Your task to perform on an android device: toggle location history Image 0: 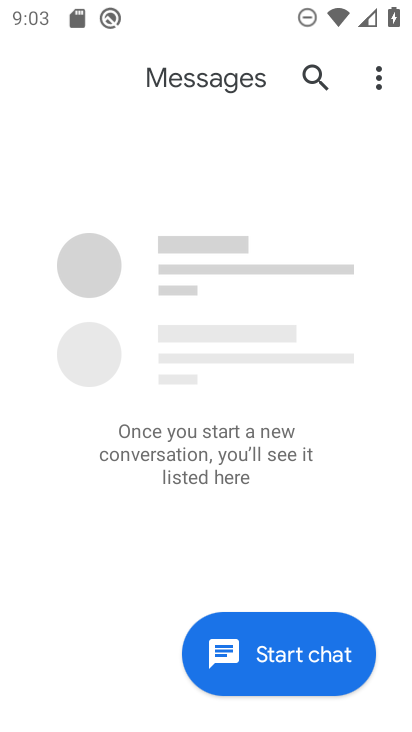
Step 0: press back button
Your task to perform on an android device: toggle location history Image 1: 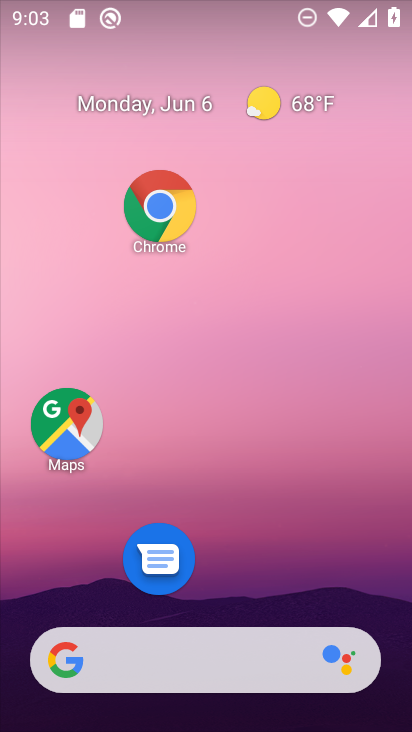
Step 1: drag from (257, 676) to (195, 257)
Your task to perform on an android device: toggle location history Image 2: 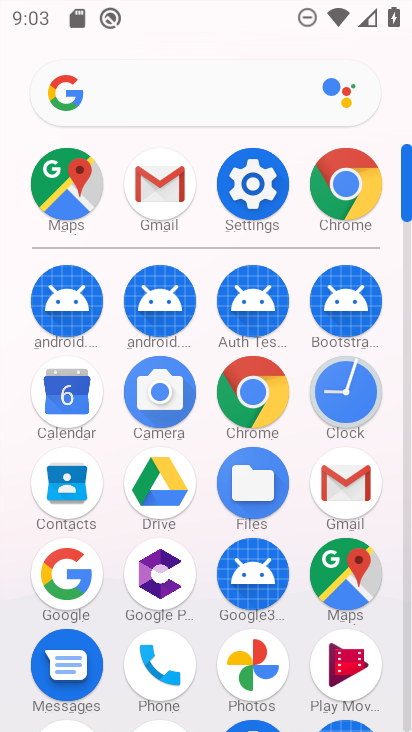
Step 2: click (251, 183)
Your task to perform on an android device: toggle location history Image 3: 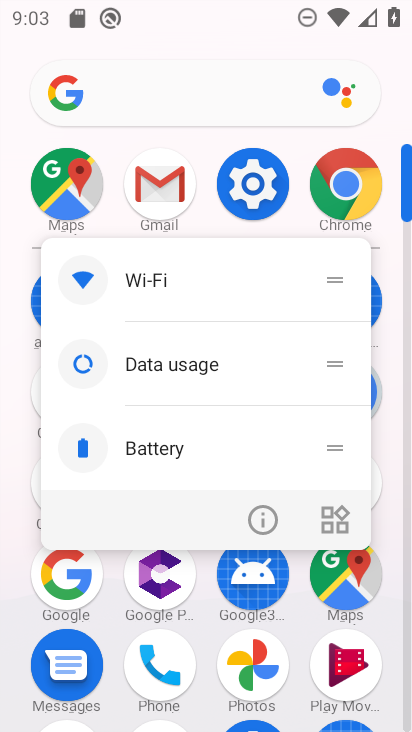
Step 3: click (243, 191)
Your task to perform on an android device: toggle location history Image 4: 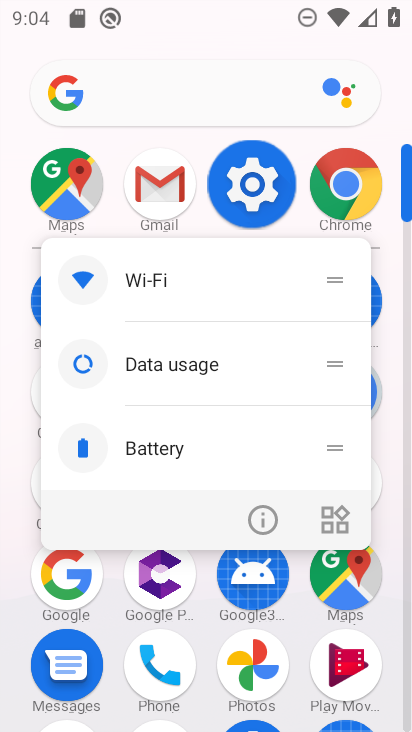
Step 4: click (249, 193)
Your task to perform on an android device: toggle location history Image 5: 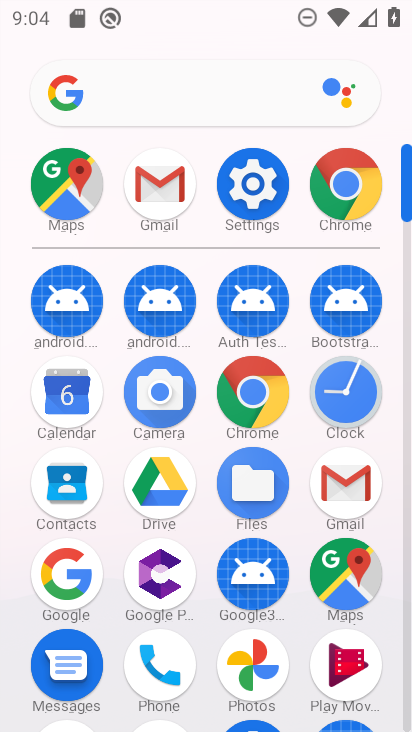
Step 5: click (250, 192)
Your task to perform on an android device: toggle location history Image 6: 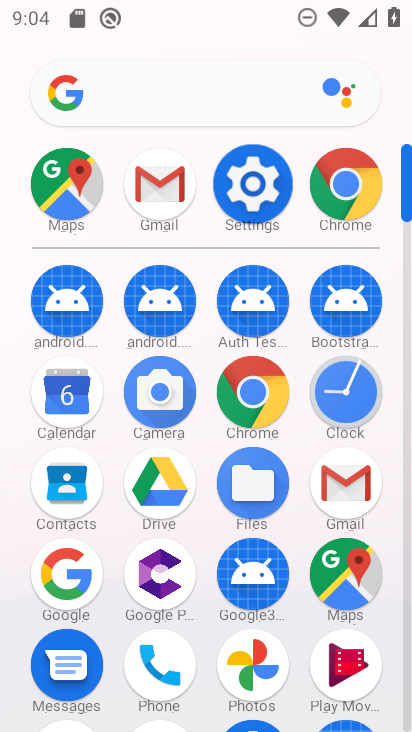
Step 6: click (250, 191)
Your task to perform on an android device: toggle location history Image 7: 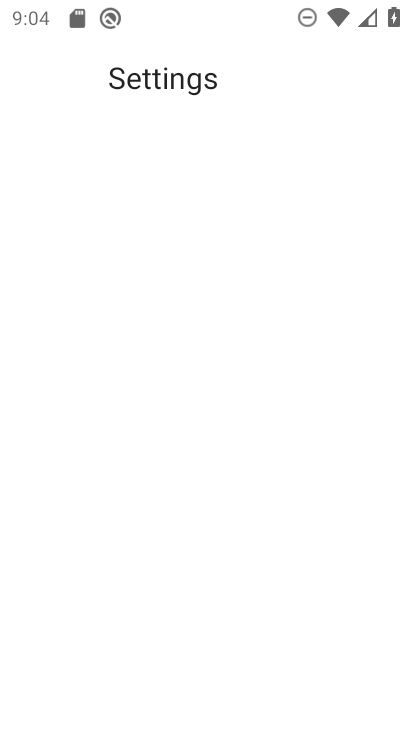
Step 7: click (250, 179)
Your task to perform on an android device: toggle location history Image 8: 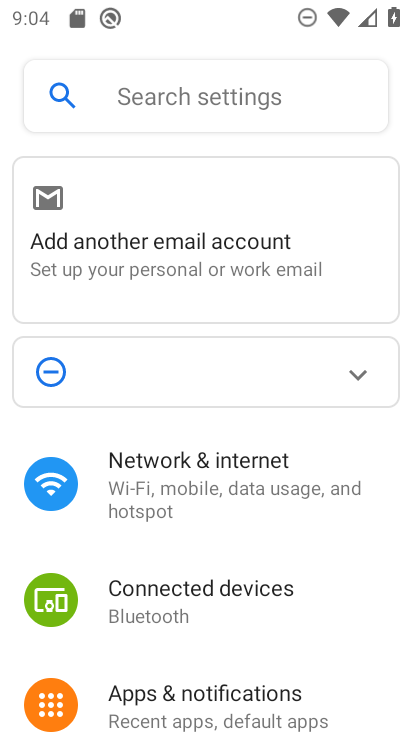
Step 8: drag from (164, 498) to (142, 224)
Your task to perform on an android device: toggle location history Image 9: 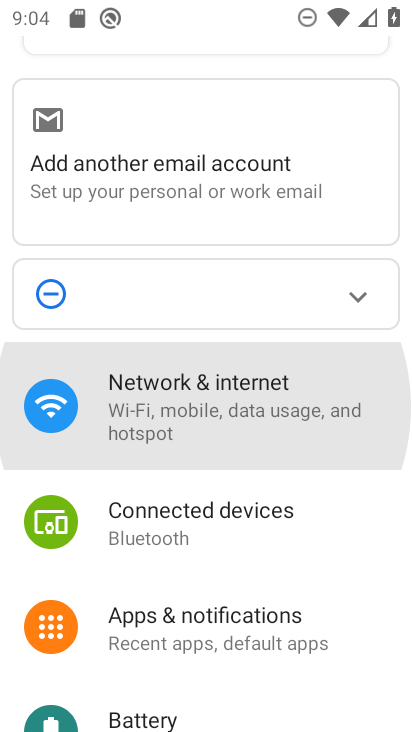
Step 9: drag from (223, 511) to (220, 274)
Your task to perform on an android device: toggle location history Image 10: 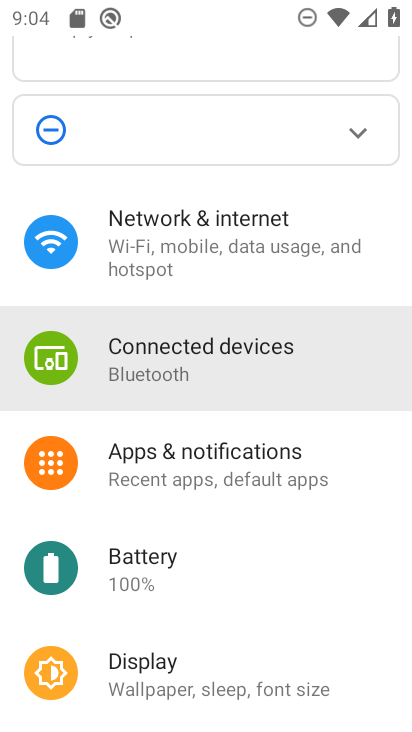
Step 10: drag from (222, 525) to (210, 296)
Your task to perform on an android device: toggle location history Image 11: 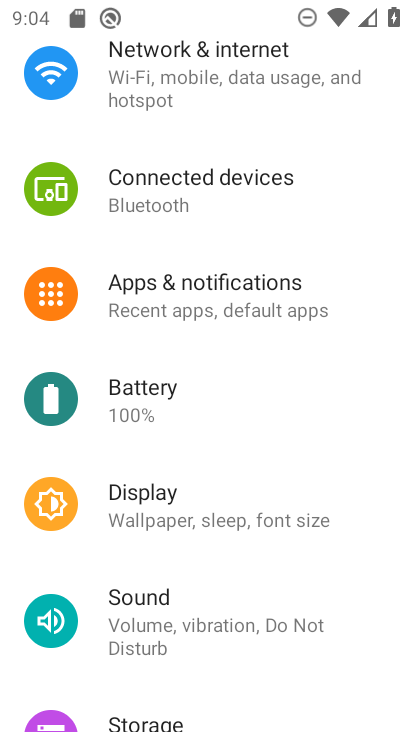
Step 11: drag from (220, 310) to (286, 295)
Your task to perform on an android device: toggle location history Image 12: 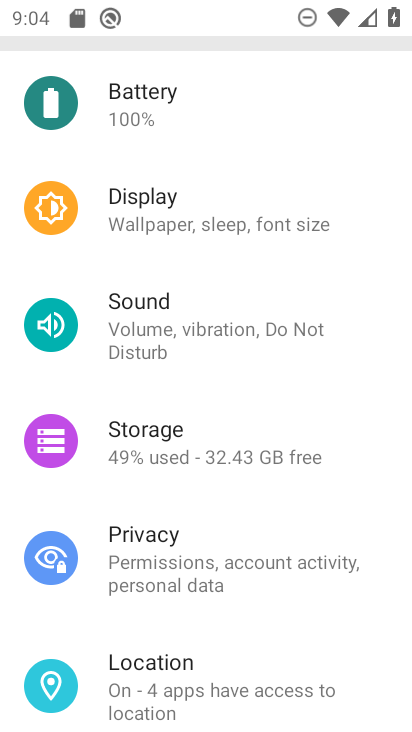
Step 12: drag from (321, 545) to (293, 303)
Your task to perform on an android device: toggle location history Image 13: 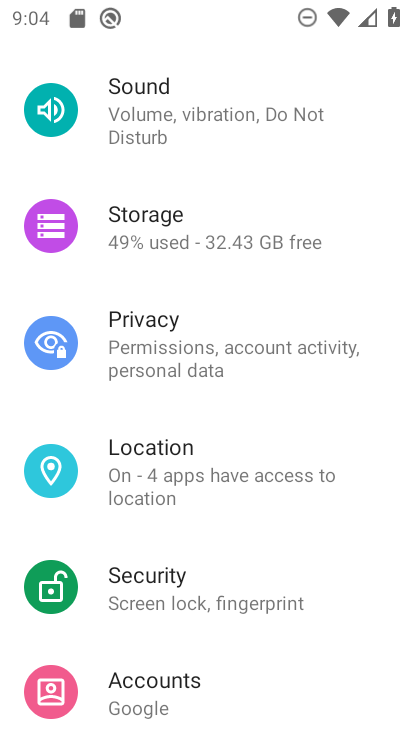
Step 13: drag from (297, 577) to (254, 270)
Your task to perform on an android device: toggle location history Image 14: 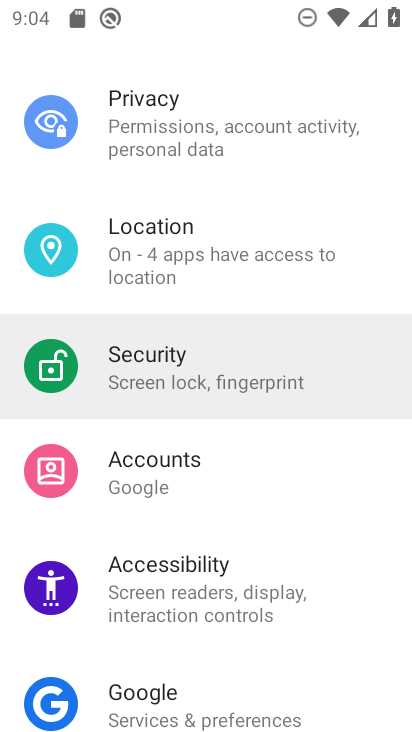
Step 14: drag from (239, 592) to (239, 361)
Your task to perform on an android device: toggle location history Image 15: 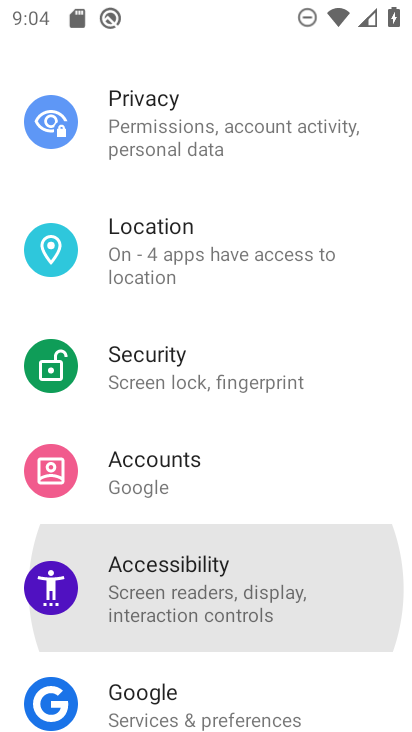
Step 15: drag from (266, 536) to (266, 357)
Your task to perform on an android device: toggle location history Image 16: 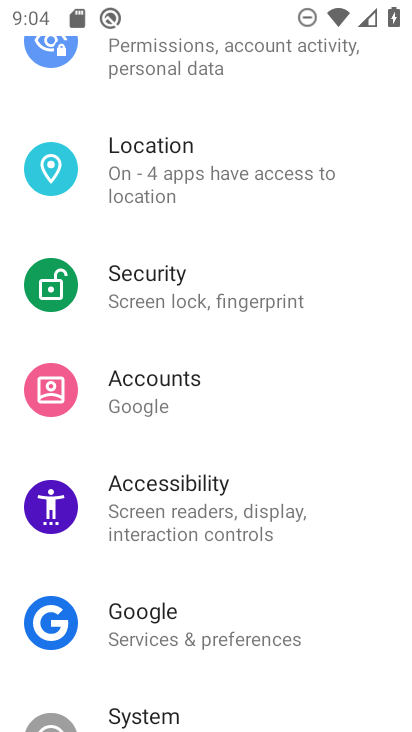
Step 16: drag from (278, 574) to (266, 325)
Your task to perform on an android device: toggle location history Image 17: 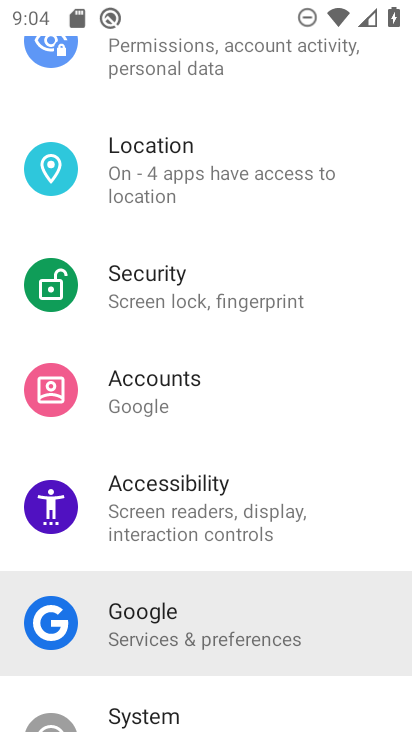
Step 17: drag from (253, 522) to (253, 379)
Your task to perform on an android device: toggle location history Image 18: 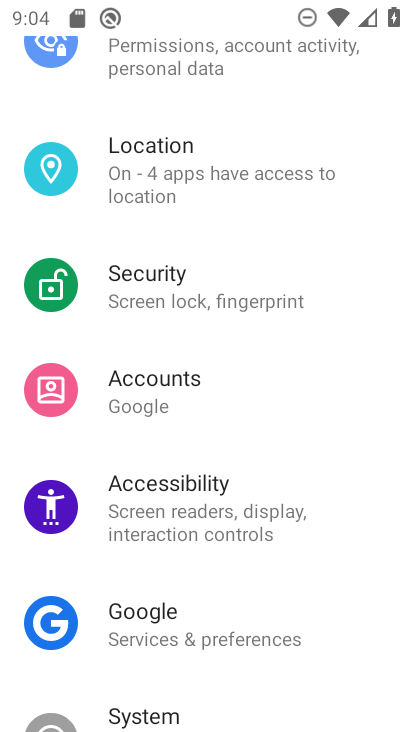
Step 18: drag from (256, 557) to (236, 352)
Your task to perform on an android device: toggle location history Image 19: 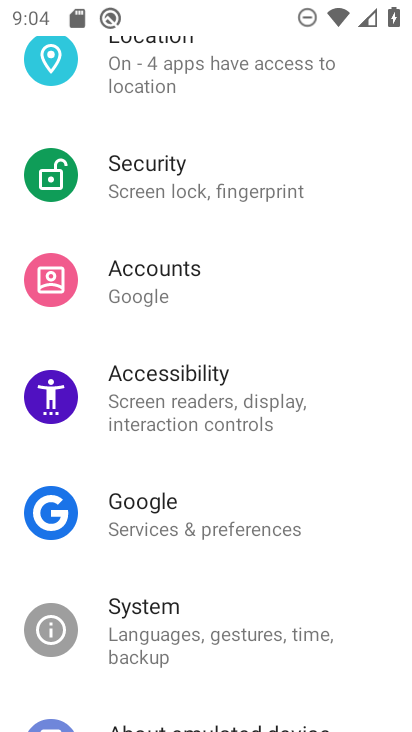
Step 19: click (222, 347)
Your task to perform on an android device: toggle location history Image 20: 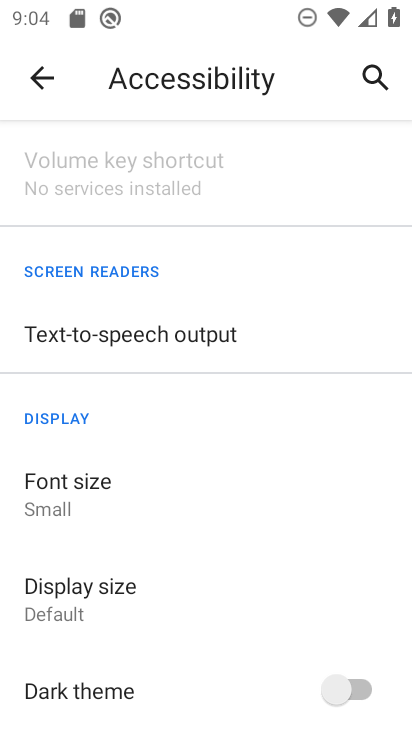
Step 20: click (31, 71)
Your task to perform on an android device: toggle location history Image 21: 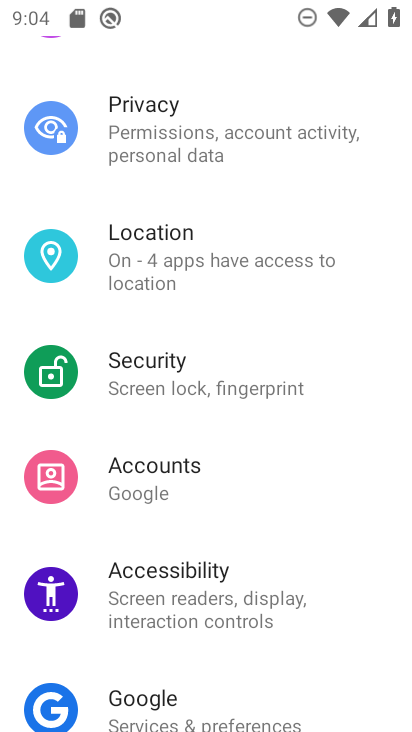
Step 21: click (154, 233)
Your task to perform on an android device: toggle location history Image 22: 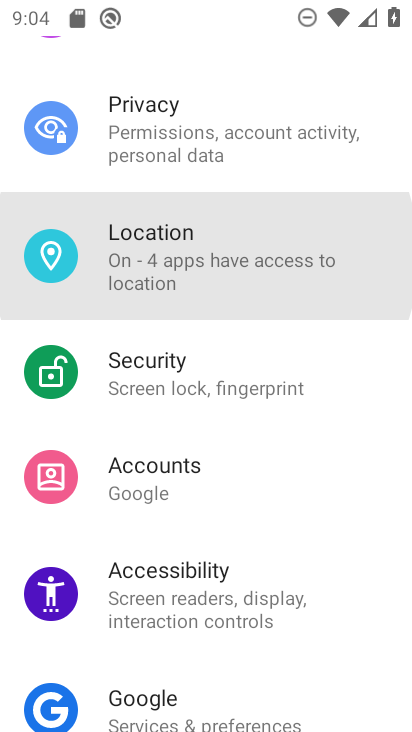
Step 22: click (154, 240)
Your task to perform on an android device: toggle location history Image 23: 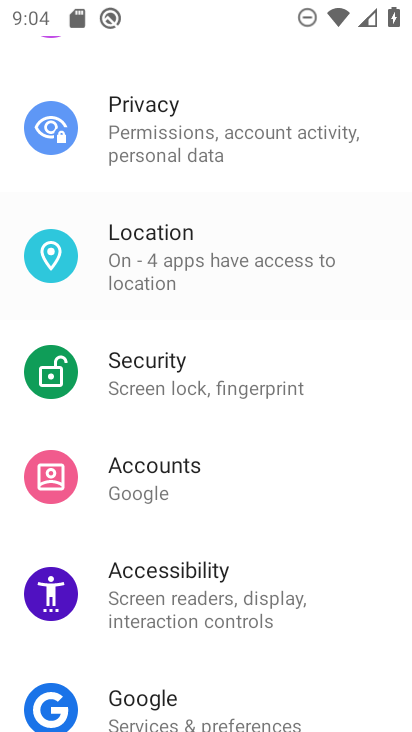
Step 23: click (156, 241)
Your task to perform on an android device: toggle location history Image 24: 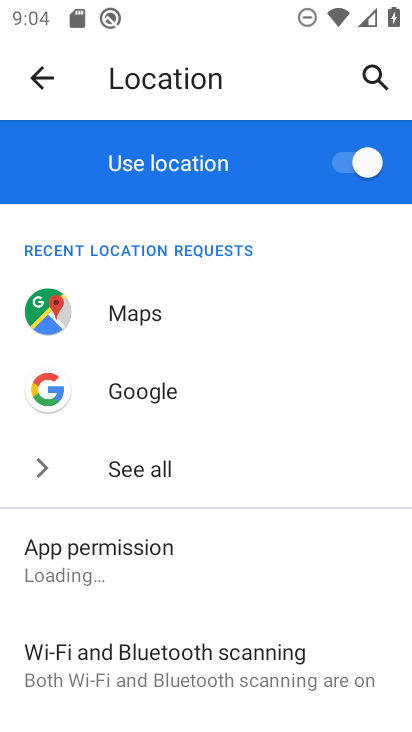
Step 24: drag from (238, 498) to (289, 243)
Your task to perform on an android device: toggle location history Image 25: 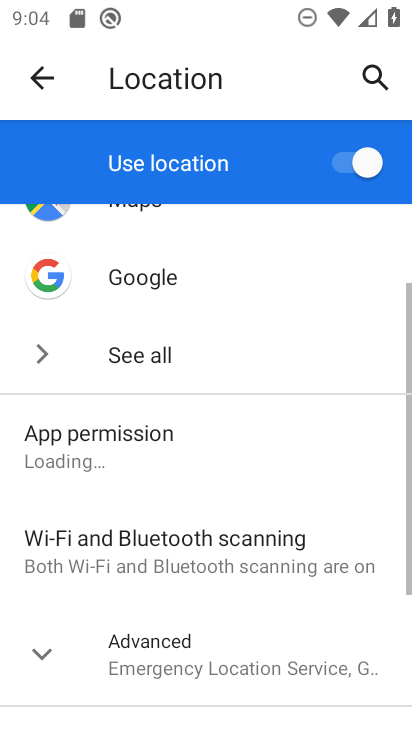
Step 25: drag from (262, 480) to (204, 249)
Your task to perform on an android device: toggle location history Image 26: 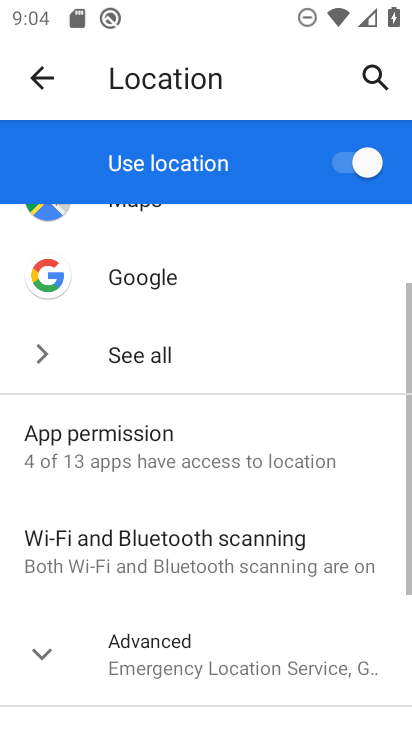
Step 26: click (175, 656)
Your task to perform on an android device: toggle location history Image 27: 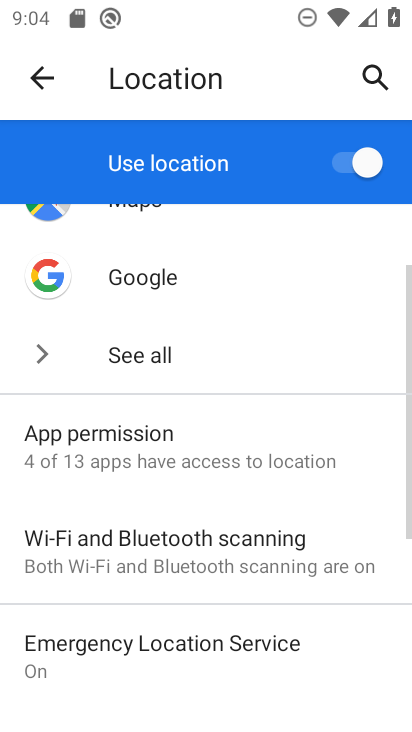
Step 27: drag from (210, 520) to (25, 156)
Your task to perform on an android device: toggle location history Image 28: 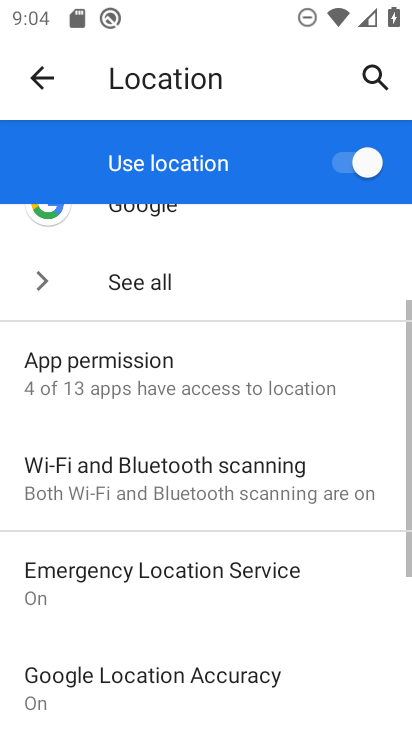
Step 28: click (210, 203)
Your task to perform on an android device: toggle location history Image 29: 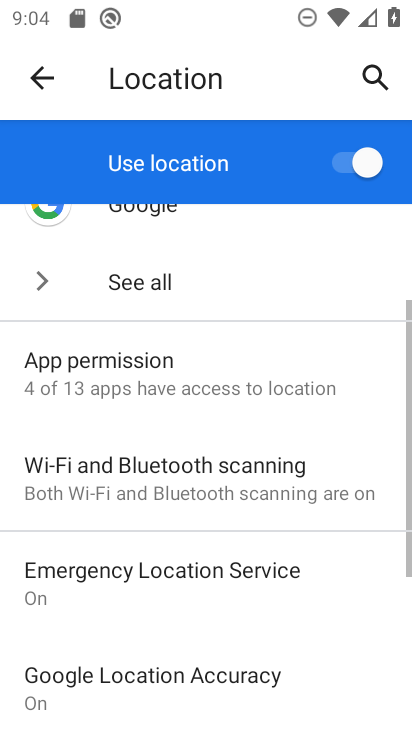
Step 29: drag from (272, 575) to (311, 128)
Your task to perform on an android device: toggle location history Image 30: 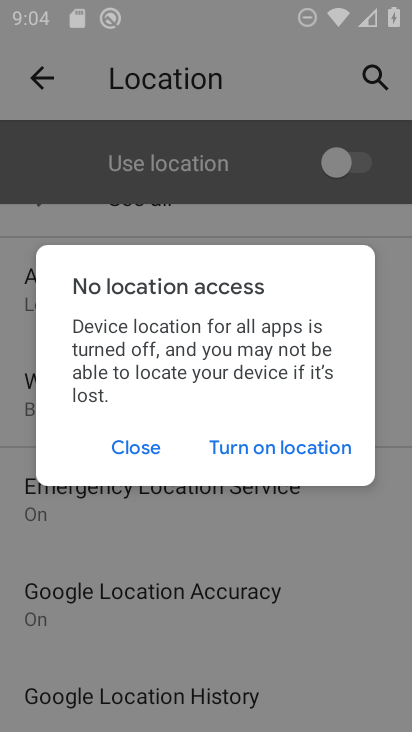
Step 30: click (339, 154)
Your task to perform on an android device: toggle location history Image 31: 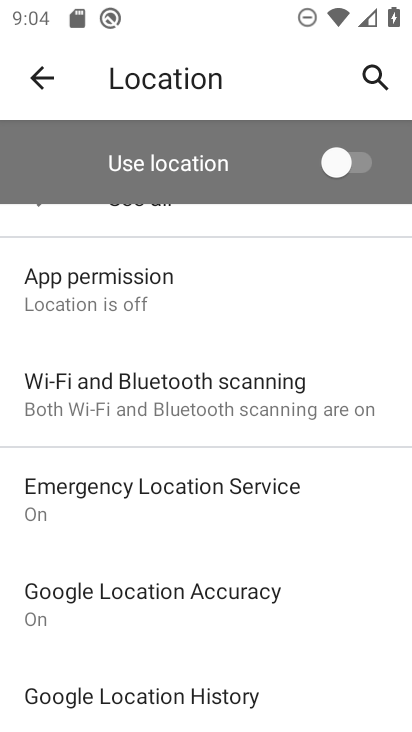
Step 31: click (337, 155)
Your task to perform on an android device: toggle location history Image 32: 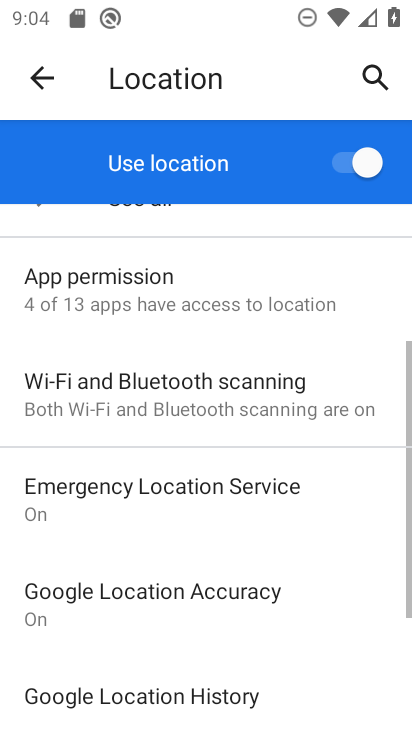
Step 32: drag from (199, 530) to (186, 302)
Your task to perform on an android device: toggle location history Image 33: 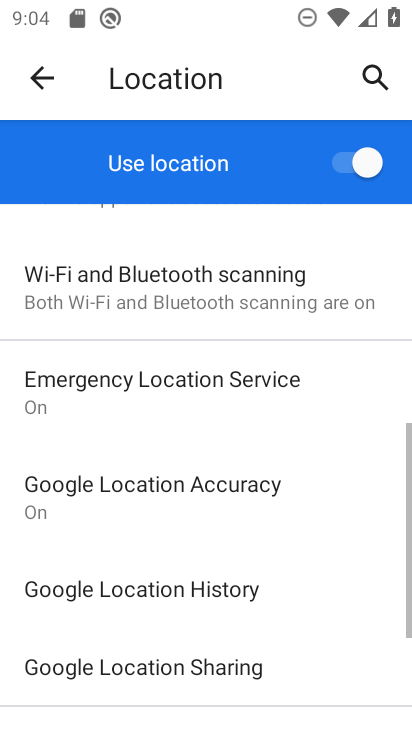
Step 33: drag from (201, 442) to (201, 326)
Your task to perform on an android device: toggle location history Image 34: 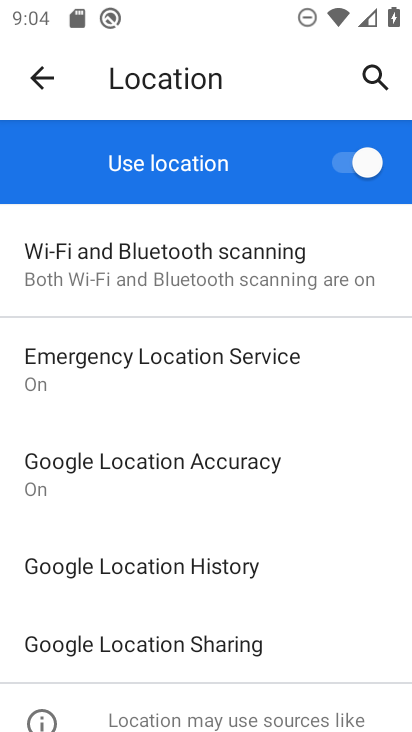
Step 34: click (169, 564)
Your task to perform on an android device: toggle location history Image 35: 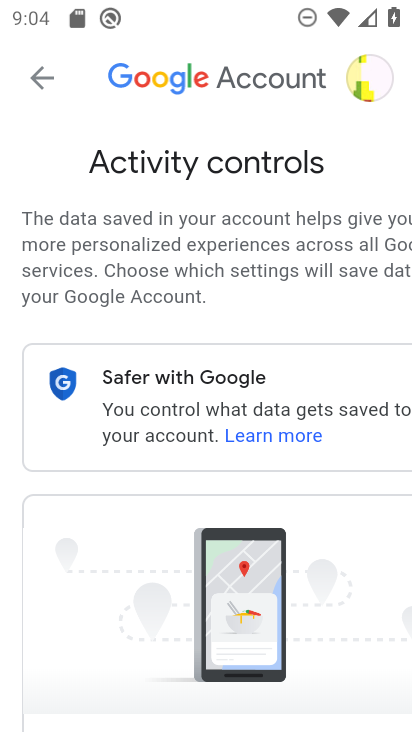
Step 35: drag from (250, 497) to (174, 12)
Your task to perform on an android device: toggle location history Image 36: 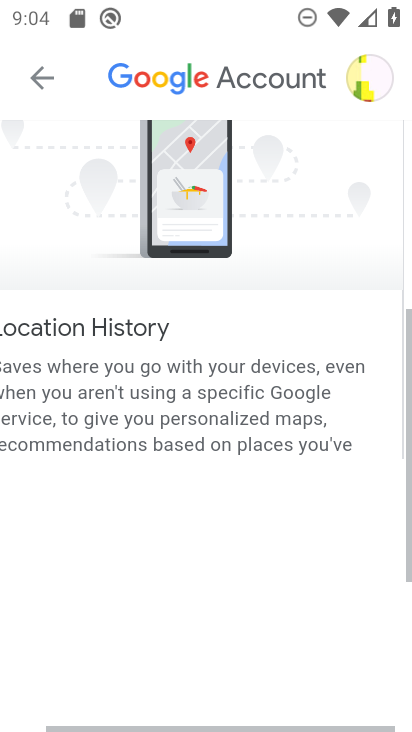
Step 36: drag from (190, 440) to (143, 164)
Your task to perform on an android device: toggle location history Image 37: 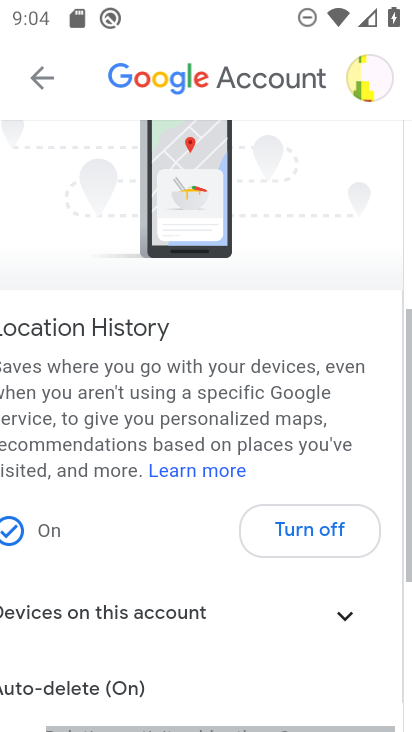
Step 37: drag from (189, 443) to (163, 183)
Your task to perform on an android device: toggle location history Image 38: 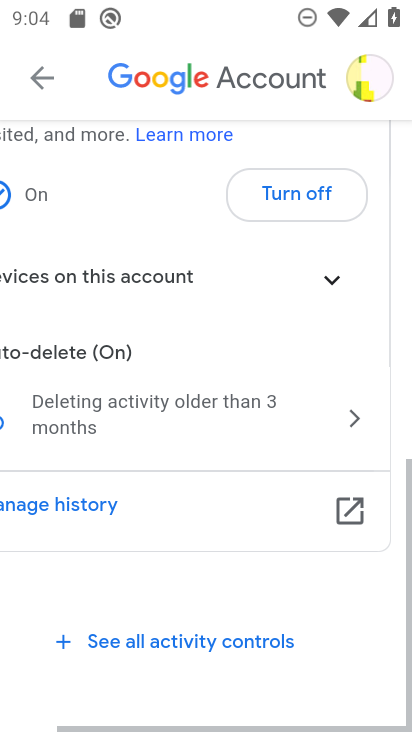
Step 38: drag from (235, 546) to (176, 193)
Your task to perform on an android device: toggle location history Image 39: 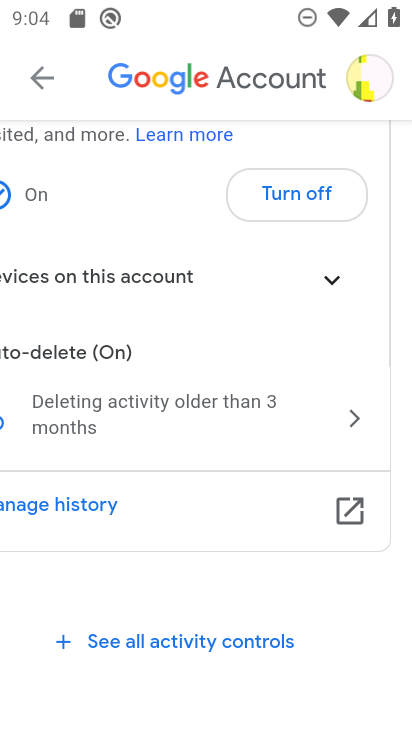
Step 39: click (308, 197)
Your task to perform on an android device: toggle location history Image 40: 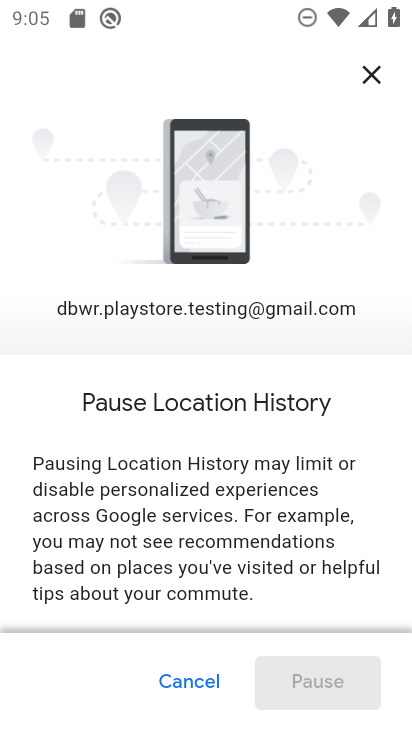
Step 40: task complete